Your task to perform on an android device: Open Chrome and go to settings Image 0: 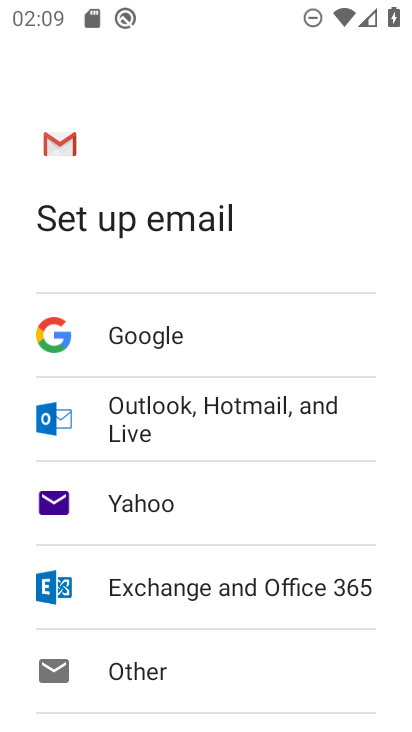
Step 0: press home button
Your task to perform on an android device: Open Chrome and go to settings Image 1: 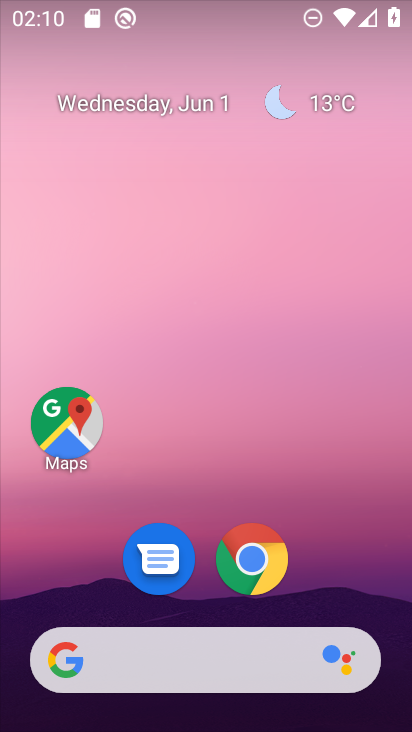
Step 1: click (263, 569)
Your task to perform on an android device: Open Chrome and go to settings Image 2: 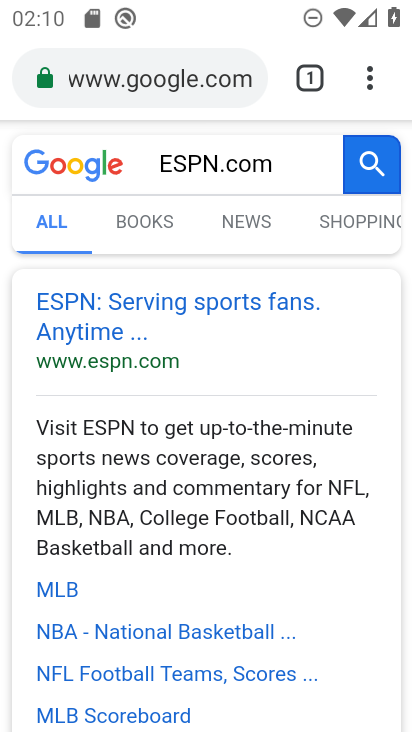
Step 2: click (367, 75)
Your task to perform on an android device: Open Chrome and go to settings Image 3: 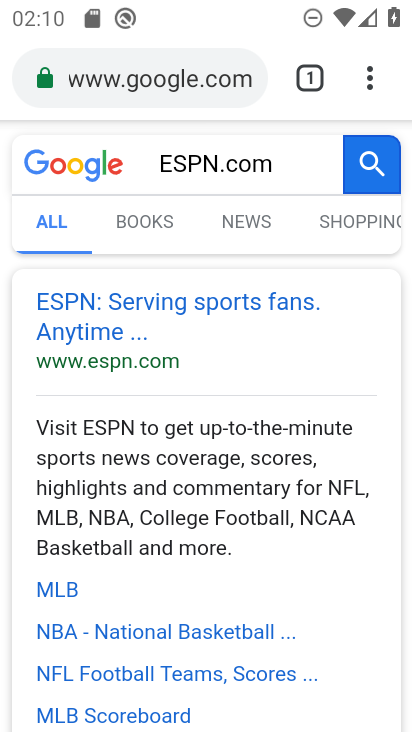
Step 3: click (367, 74)
Your task to perform on an android device: Open Chrome and go to settings Image 4: 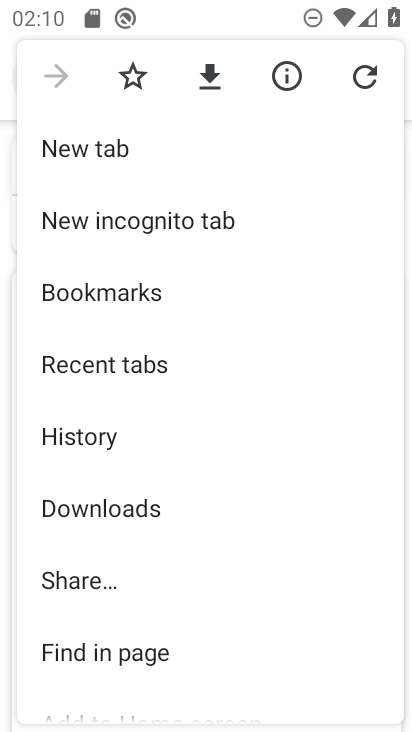
Step 4: drag from (257, 620) to (247, 259)
Your task to perform on an android device: Open Chrome and go to settings Image 5: 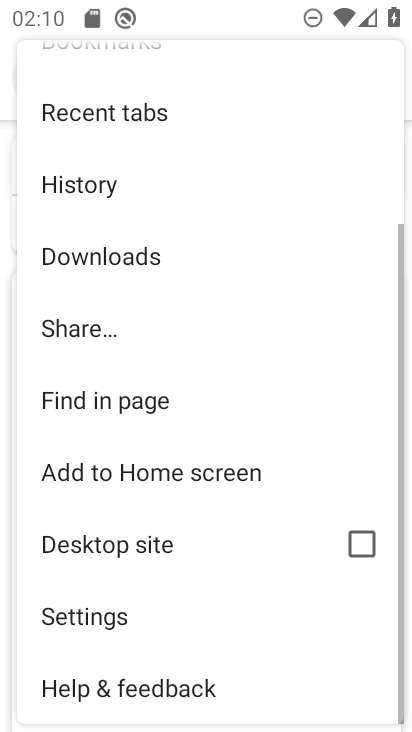
Step 5: click (88, 617)
Your task to perform on an android device: Open Chrome and go to settings Image 6: 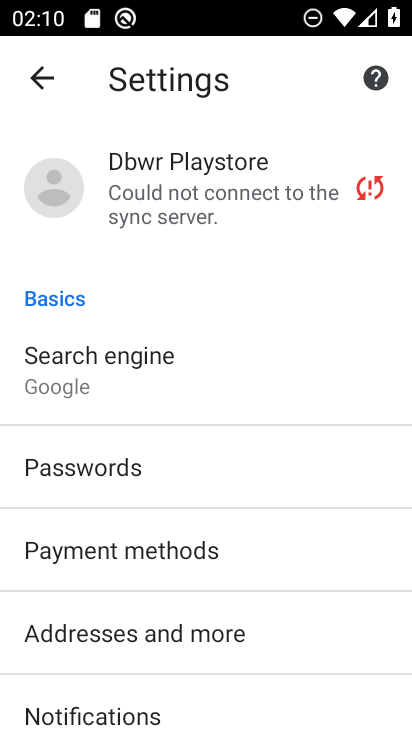
Step 6: drag from (242, 708) to (242, 427)
Your task to perform on an android device: Open Chrome and go to settings Image 7: 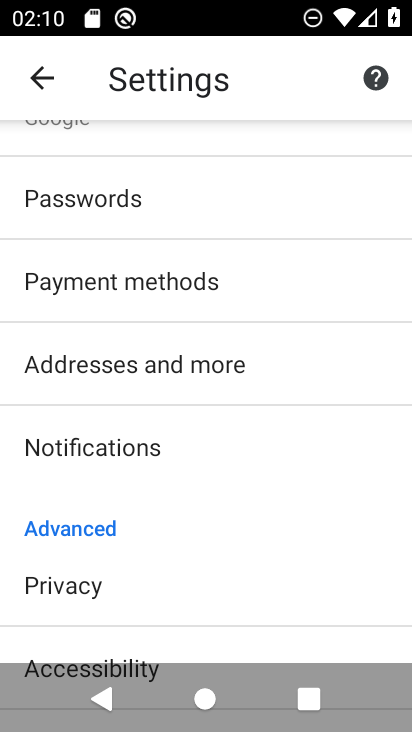
Step 7: click (88, 581)
Your task to perform on an android device: Open Chrome and go to settings Image 8: 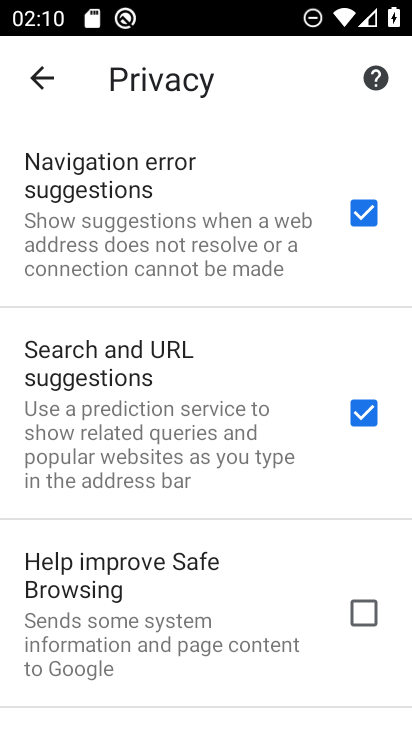
Step 8: click (29, 73)
Your task to perform on an android device: Open Chrome and go to settings Image 9: 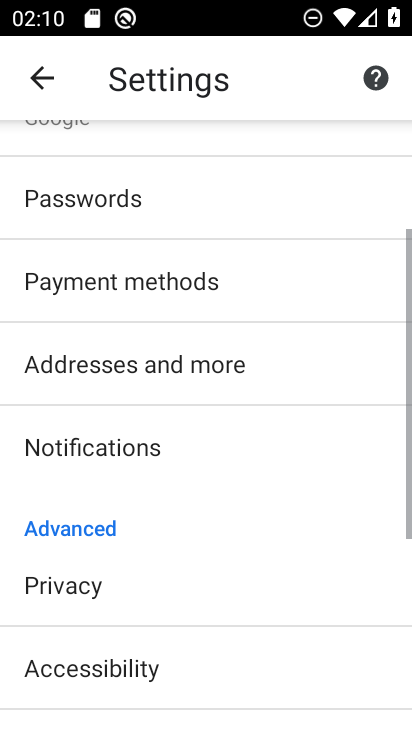
Step 9: task complete